Your task to perform on an android device: manage bookmarks in the chrome app Image 0: 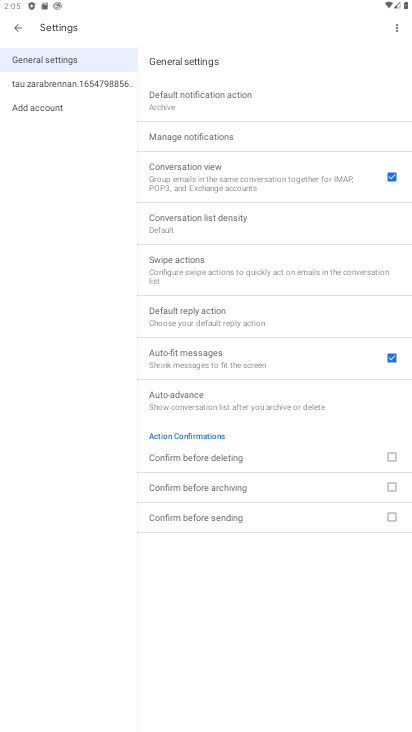
Step 0: press home button
Your task to perform on an android device: manage bookmarks in the chrome app Image 1: 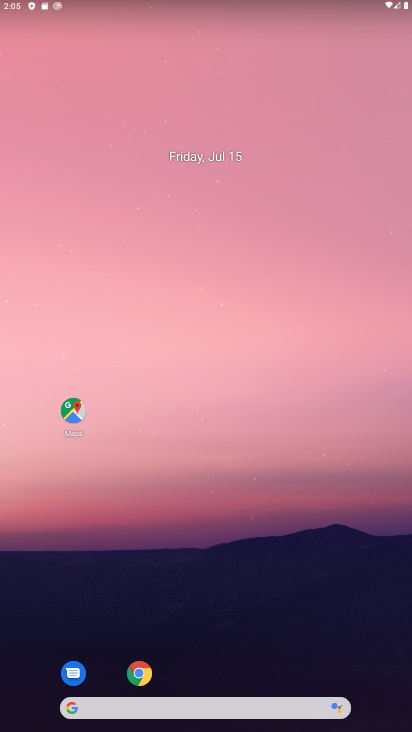
Step 1: drag from (212, 647) to (222, 151)
Your task to perform on an android device: manage bookmarks in the chrome app Image 2: 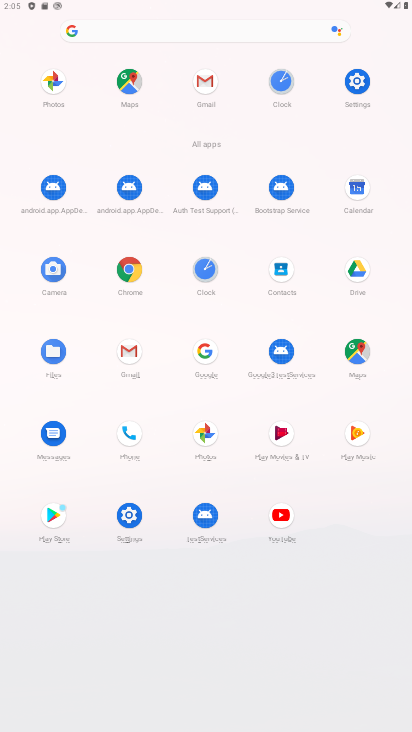
Step 2: click (125, 268)
Your task to perform on an android device: manage bookmarks in the chrome app Image 3: 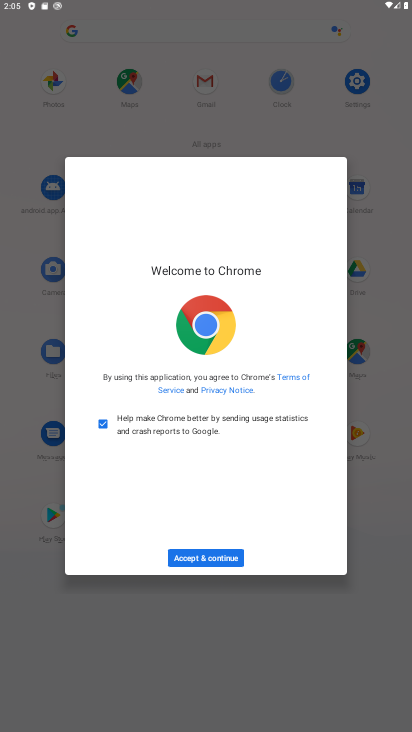
Step 3: click (199, 560)
Your task to perform on an android device: manage bookmarks in the chrome app Image 4: 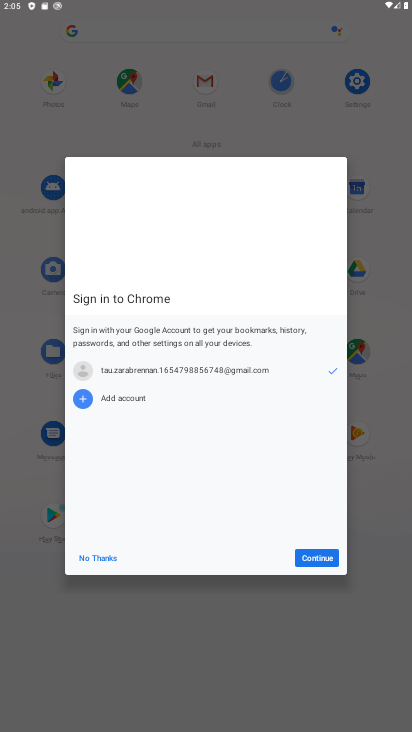
Step 4: click (323, 561)
Your task to perform on an android device: manage bookmarks in the chrome app Image 5: 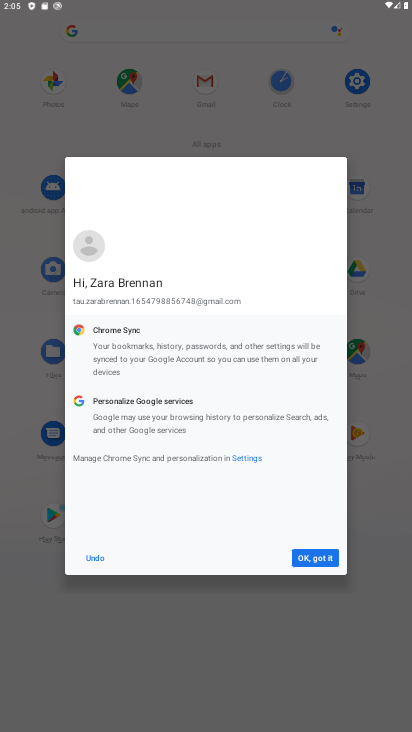
Step 5: click (323, 560)
Your task to perform on an android device: manage bookmarks in the chrome app Image 6: 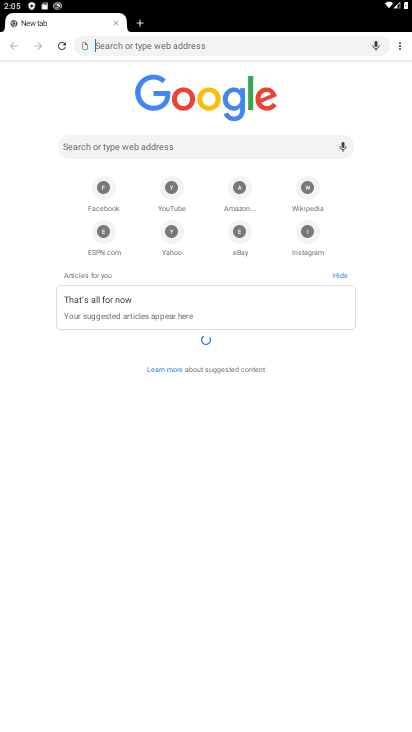
Step 6: drag from (403, 42) to (370, 85)
Your task to perform on an android device: manage bookmarks in the chrome app Image 7: 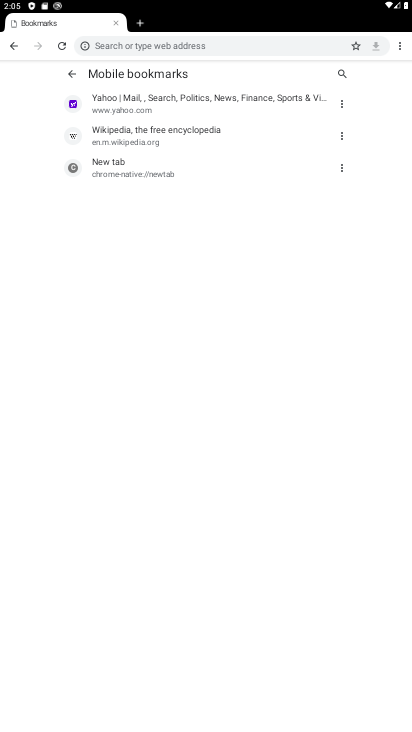
Step 7: click (145, 117)
Your task to perform on an android device: manage bookmarks in the chrome app Image 8: 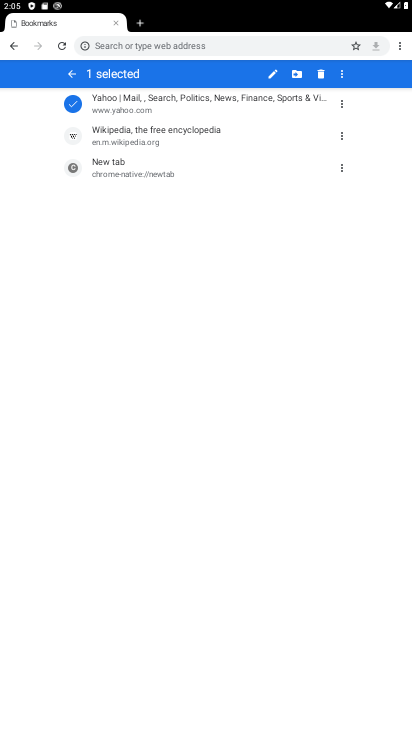
Step 8: click (148, 129)
Your task to perform on an android device: manage bookmarks in the chrome app Image 9: 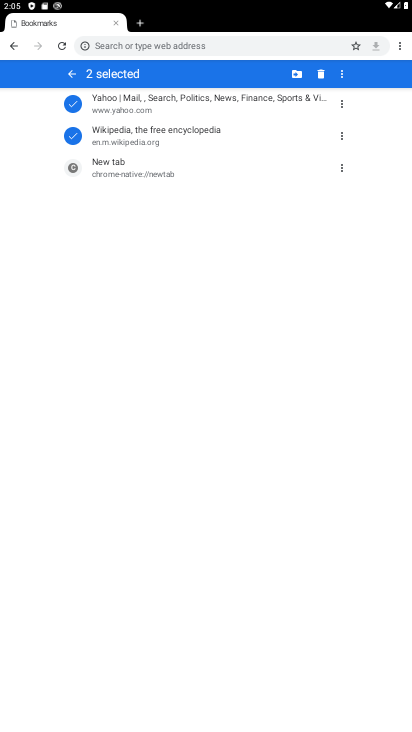
Step 9: click (137, 169)
Your task to perform on an android device: manage bookmarks in the chrome app Image 10: 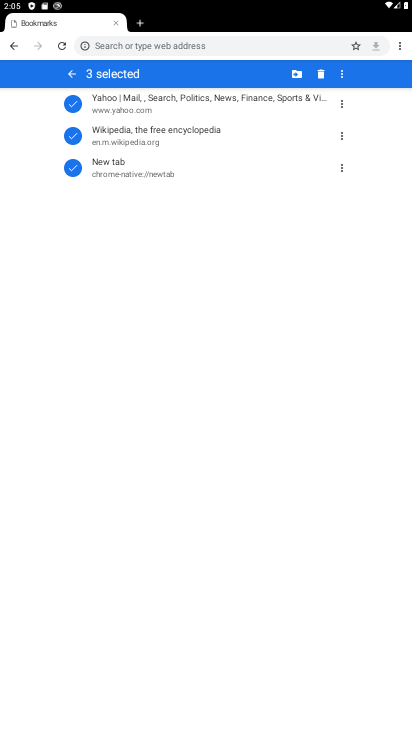
Step 10: click (287, 70)
Your task to perform on an android device: manage bookmarks in the chrome app Image 11: 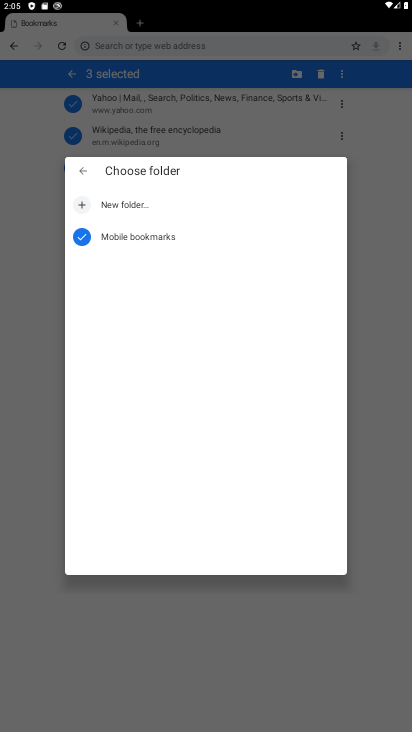
Step 11: click (127, 209)
Your task to perform on an android device: manage bookmarks in the chrome app Image 12: 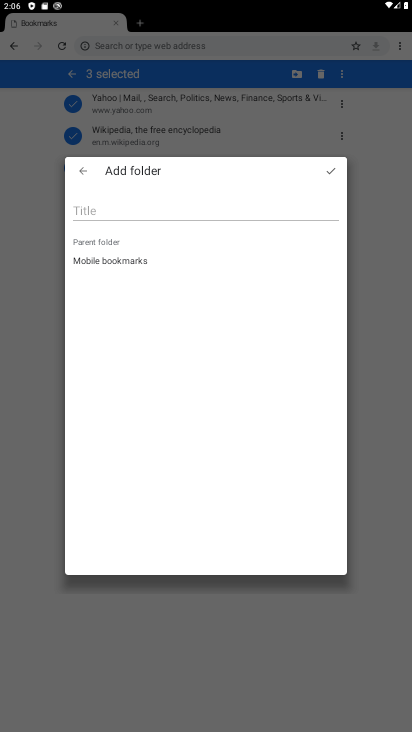
Step 12: type "dcd"
Your task to perform on an android device: manage bookmarks in the chrome app Image 13: 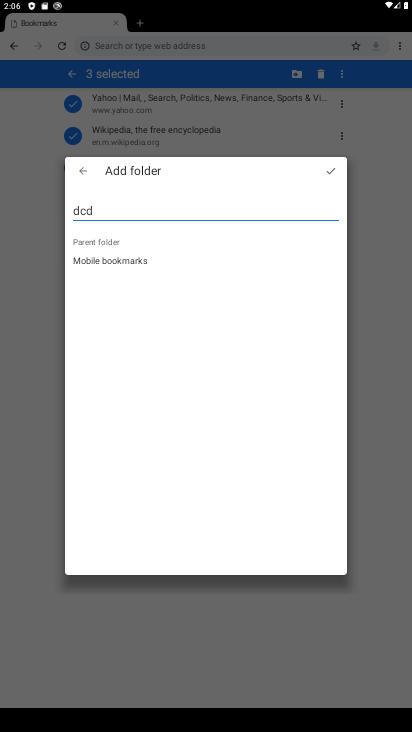
Step 13: click (333, 169)
Your task to perform on an android device: manage bookmarks in the chrome app Image 14: 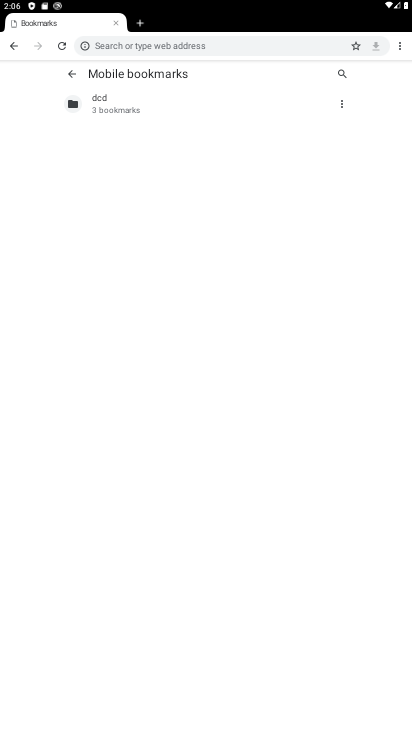
Step 14: task complete